Your task to perform on an android device: How do I get to the nearest electronics store? Image 0: 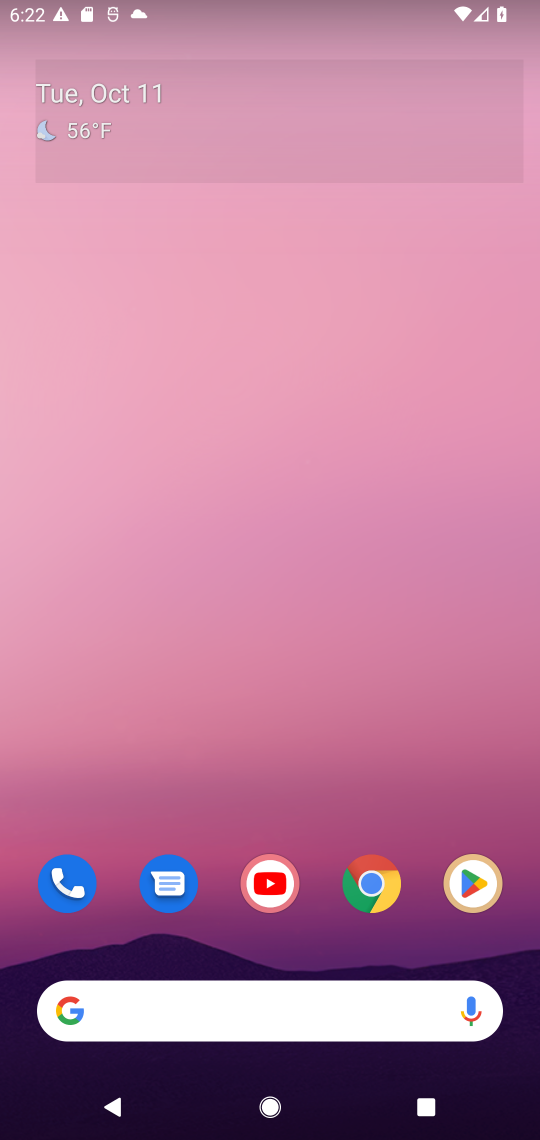
Step 0: drag from (325, 807) to (441, 55)
Your task to perform on an android device: How do I get to the nearest electronics store? Image 1: 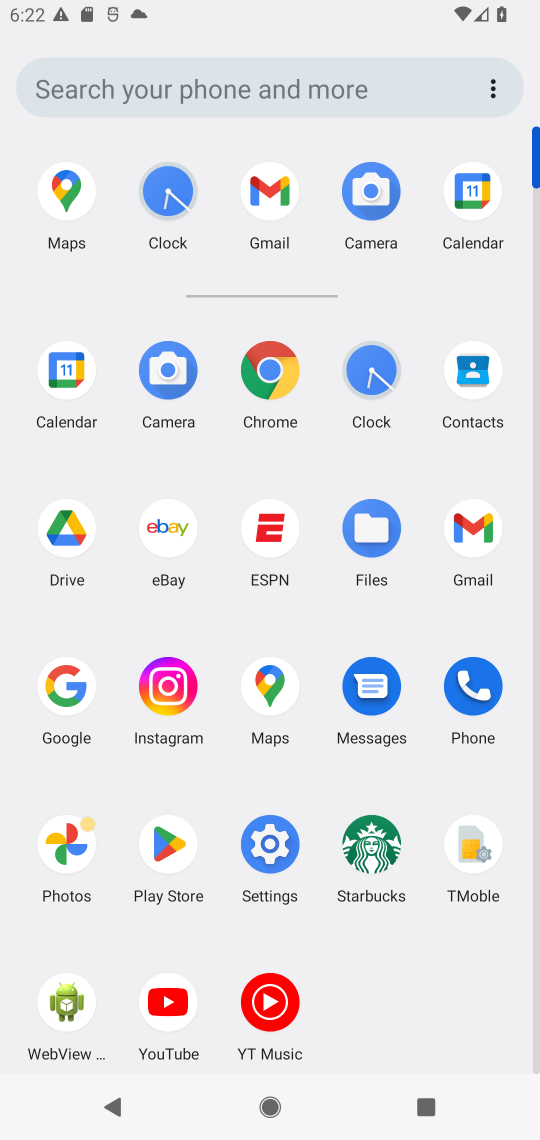
Step 1: click (292, 370)
Your task to perform on an android device: How do I get to the nearest electronics store? Image 2: 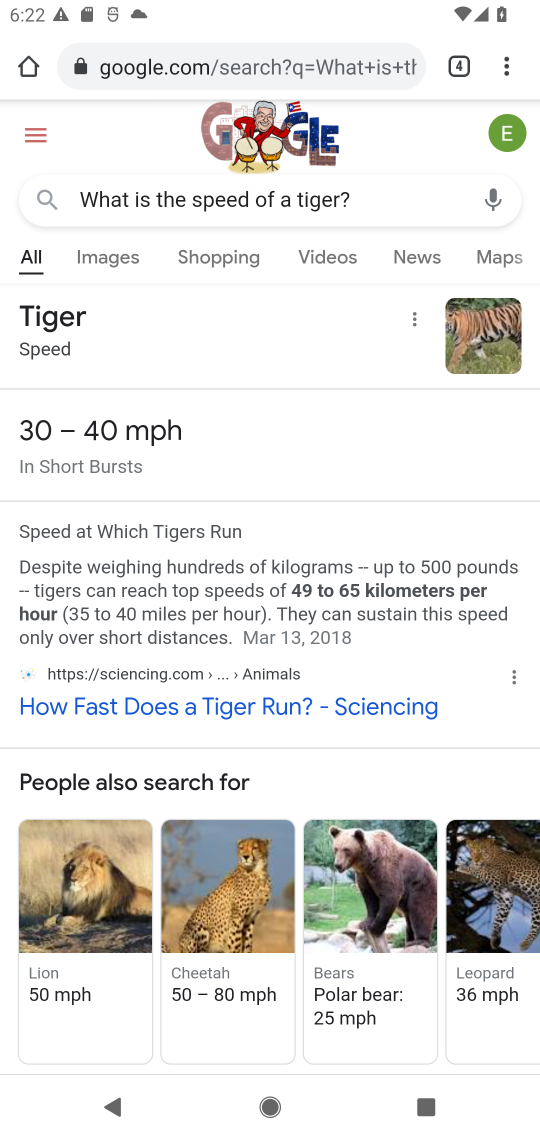
Step 2: click (331, 84)
Your task to perform on an android device: How do I get to the nearest electronics store? Image 3: 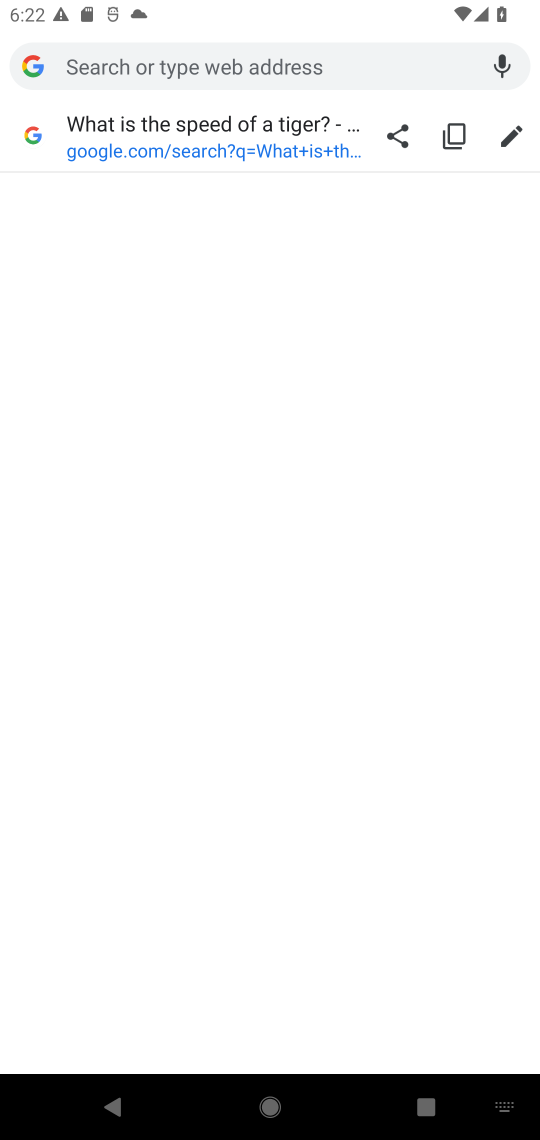
Step 3: type "How do I get to the nearest electronics store?"
Your task to perform on an android device: How do I get to the nearest electronics store? Image 4: 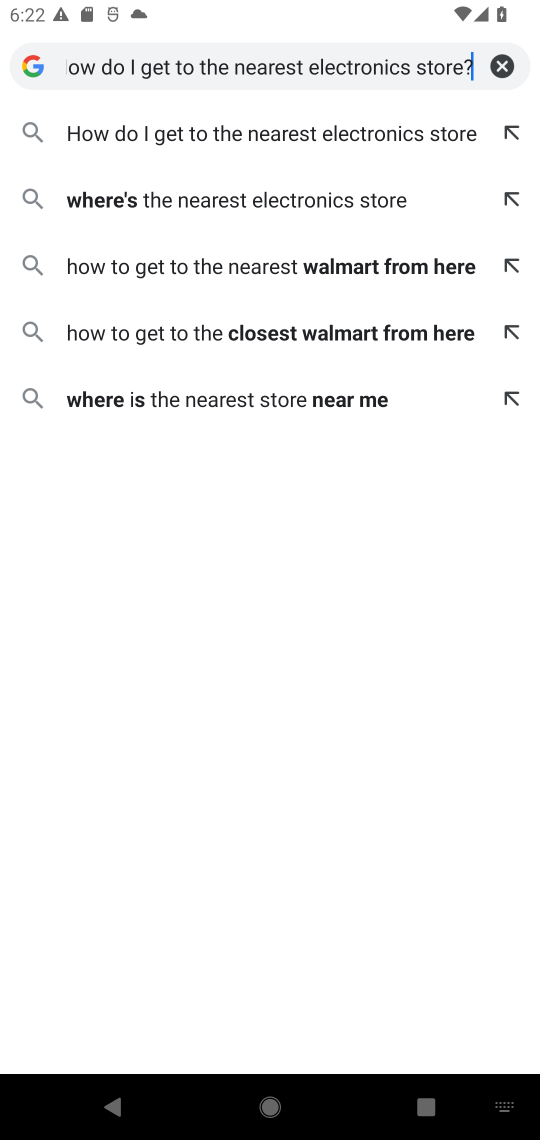
Step 4: press enter
Your task to perform on an android device: How do I get to the nearest electronics store? Image 5: 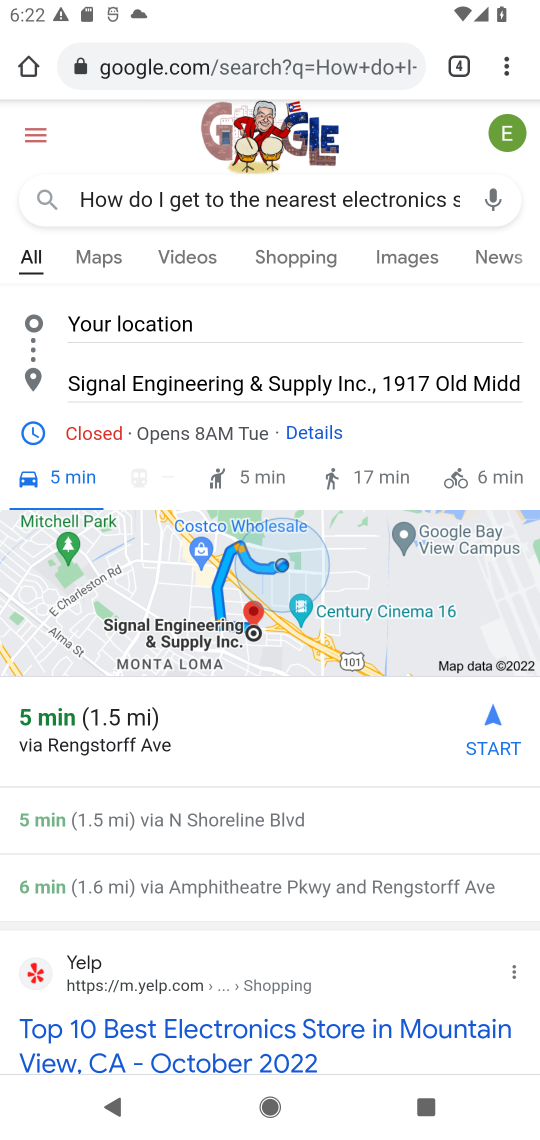
Step 5: task complete